Your task to perform on an android device: check the backup settings in the google photos Image 0: 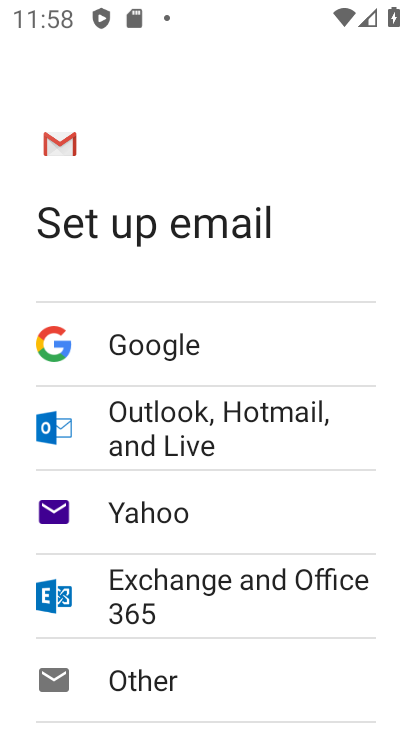
Step 0: press home button
Your task to perform on an android device: check the backup settings in the google photos Image 1: 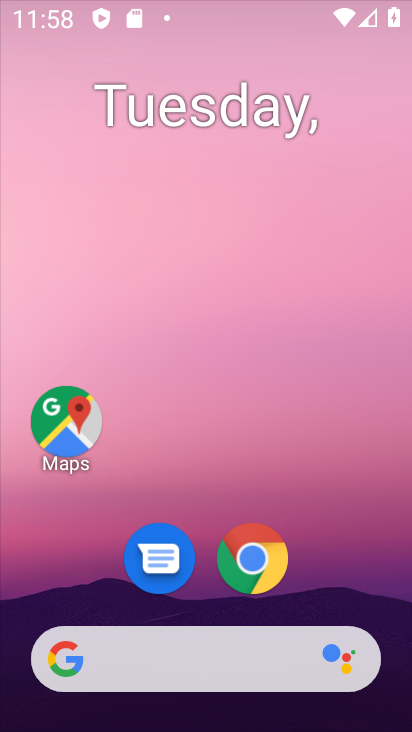
Step 1: drag from (237, 575) to (260, 159)
Your task to perform on an android device: check the backup settings in the google photos Image 2: 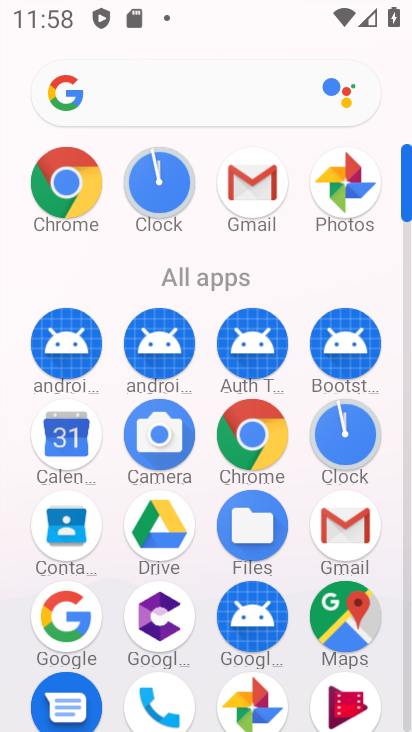
Step 2: drag from (228, 555) to (222, 239)
Your task to perform on an android device: check the backup settings in the google photos Image 3: 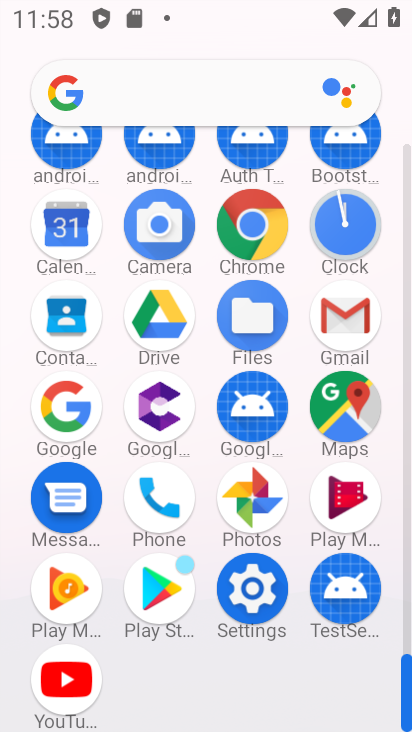
Step 3: click (246, 512)
Your task to perform on an android device: check the backup settings in the google photos Image 4: 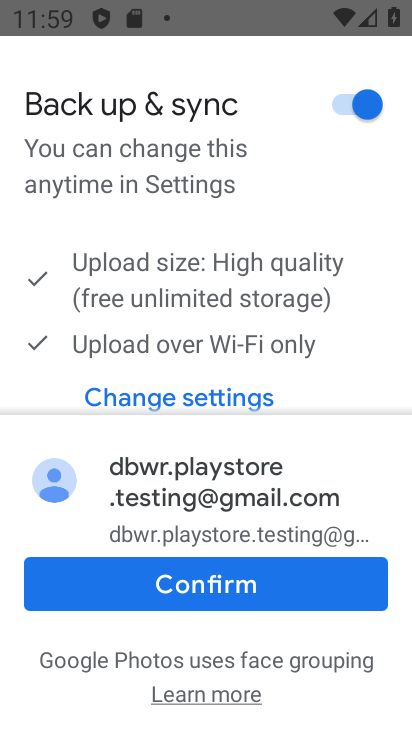
Step 4: click (239, 591)
Your task to perform on an android device: check the backup settings in the google photos Image 5: 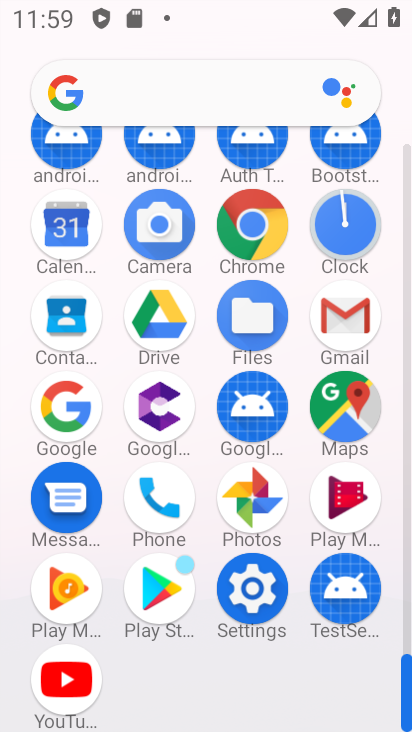
Step 5: drag from (279, 491) to (269, 186)
Your task to perform on an android device: check the backup settings in the google photos Image 6: 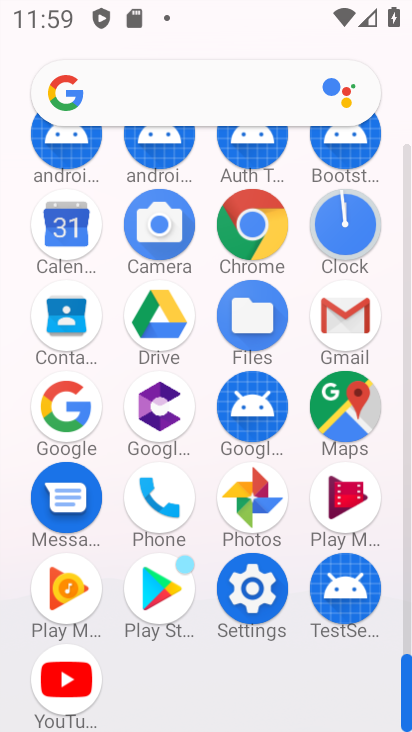
Step 6: click (254, 490)
Your task to perform on an android device: check the backup settings in the google photos Image 7: 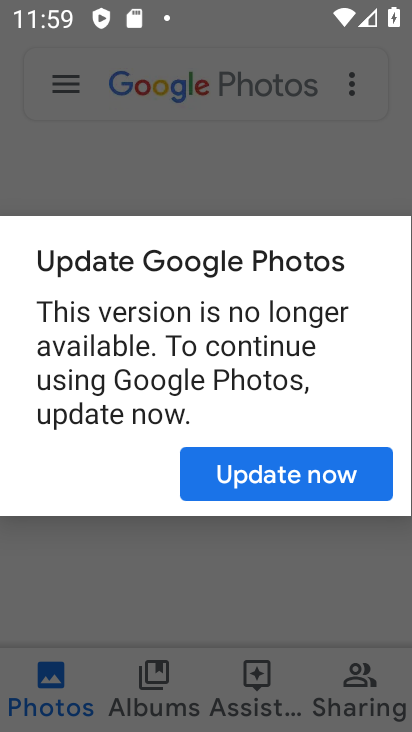
Step 7: click (272, 589)
Your task to perform on an android device: check the backup settings in the google photos Image 8: 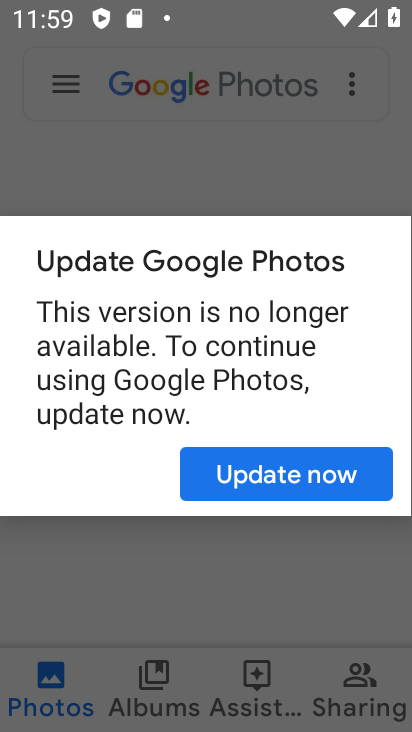
Step 8: click (294, 486)
Your task to perform on an android device: check the backup settings in the google photos Image 9: 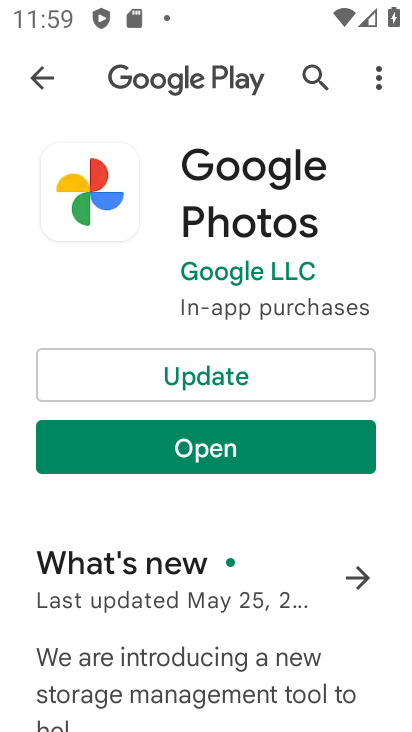
Step 9: task complete